Your task to perform on an android device: Clear all items from cart on walmart. Image 0: 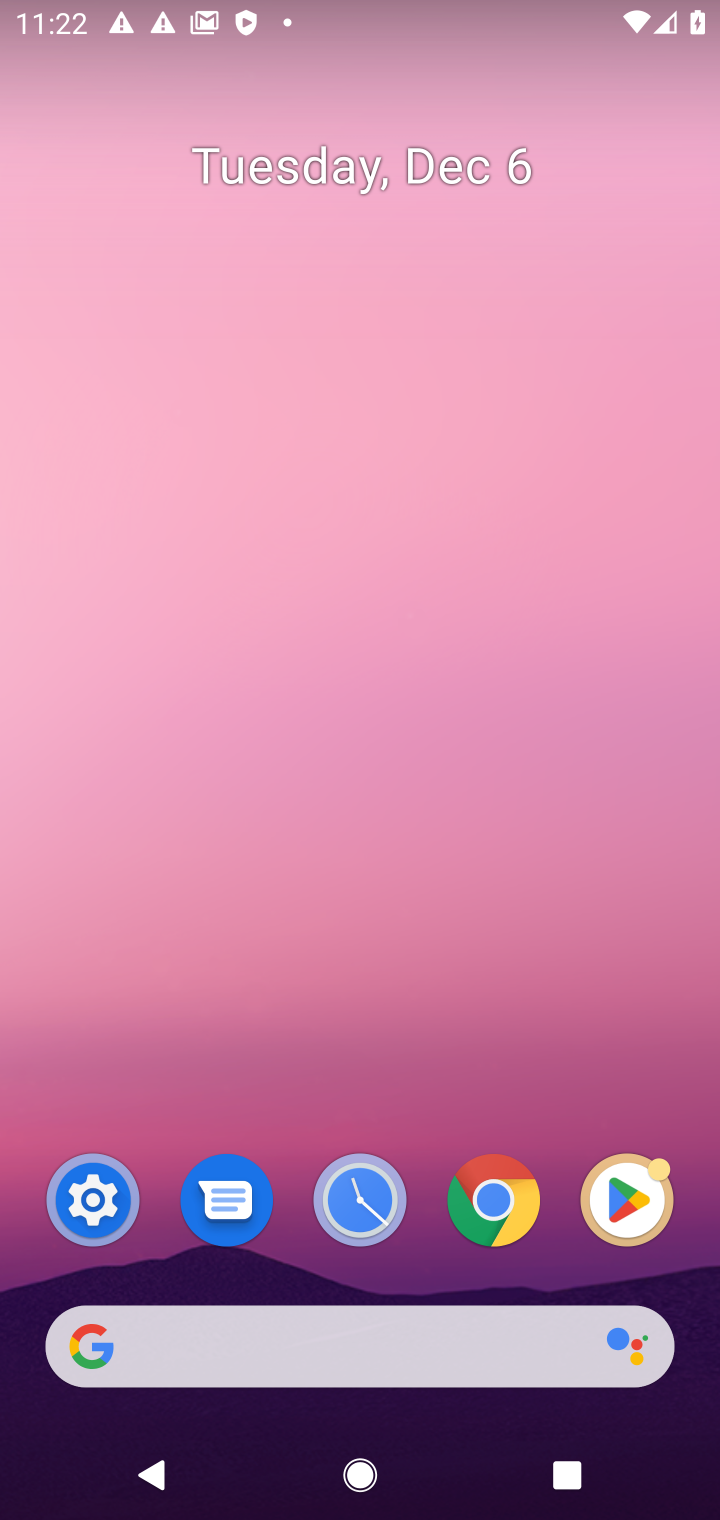
Step 0: click (390, 1387)
Your task to perform on an android device: Clear all items from cart on walmart. Image 1: 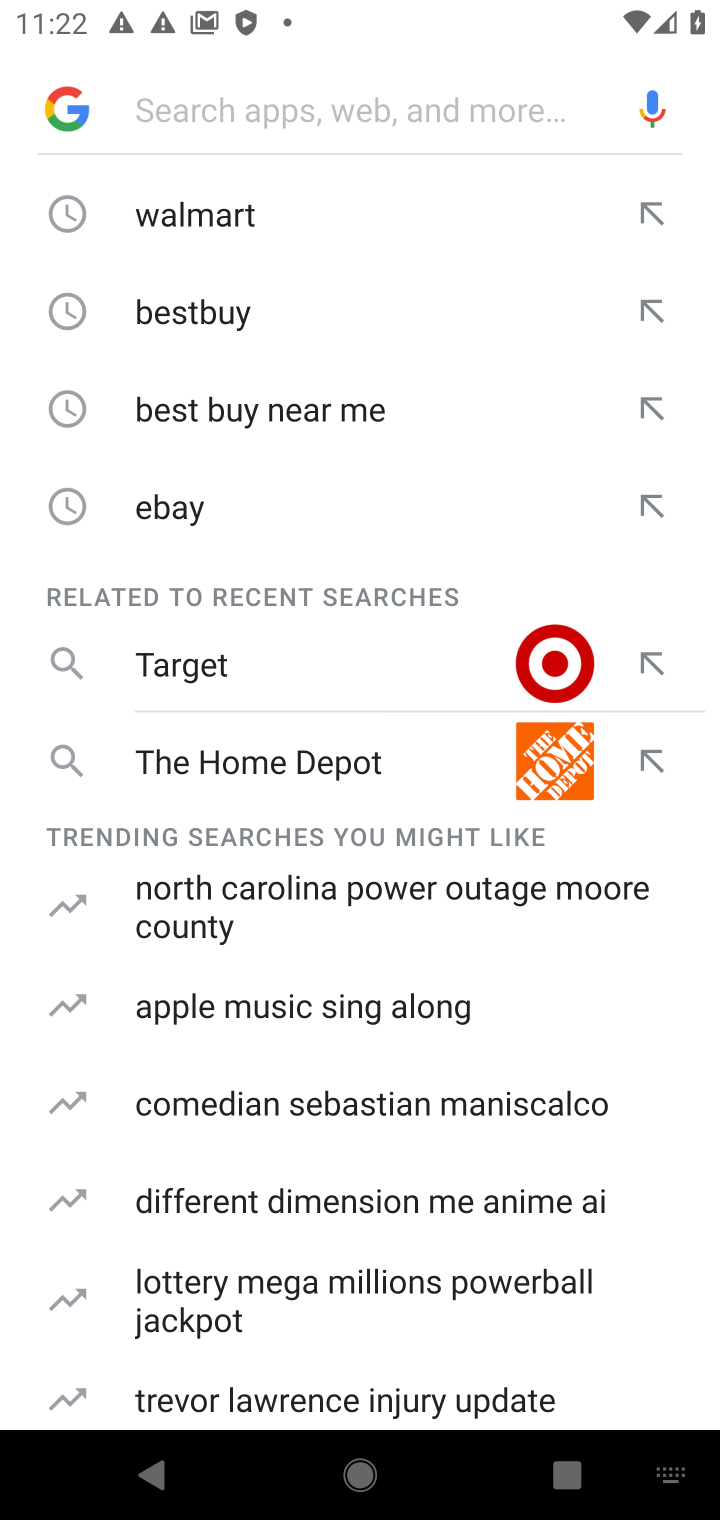
Step 1: type "walmart"
Your task to perform on an android device: Clear all items from cart on walmart. Image 2: 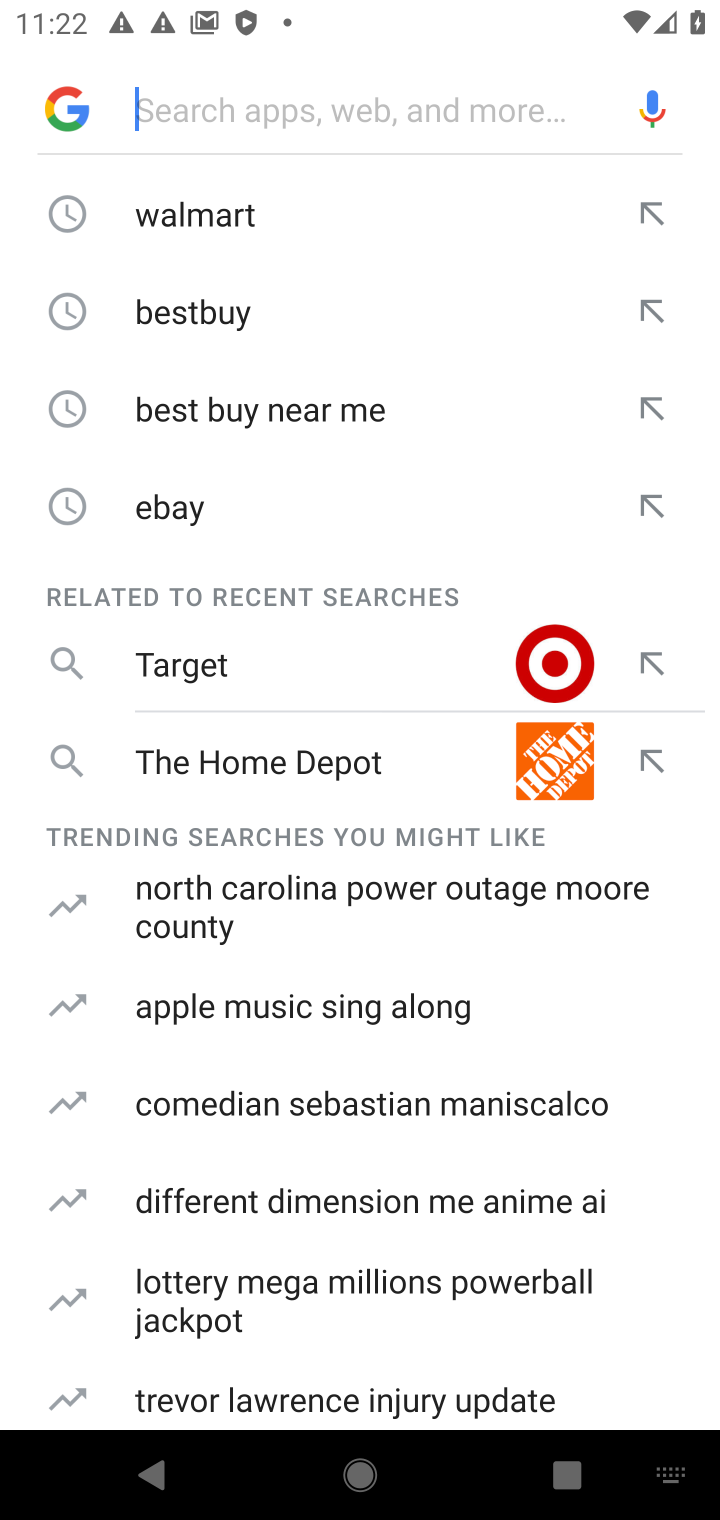
Step 2: click (406, 239)
Your task to perform on an android device: Clear all items from cart on walmart. Image 3: 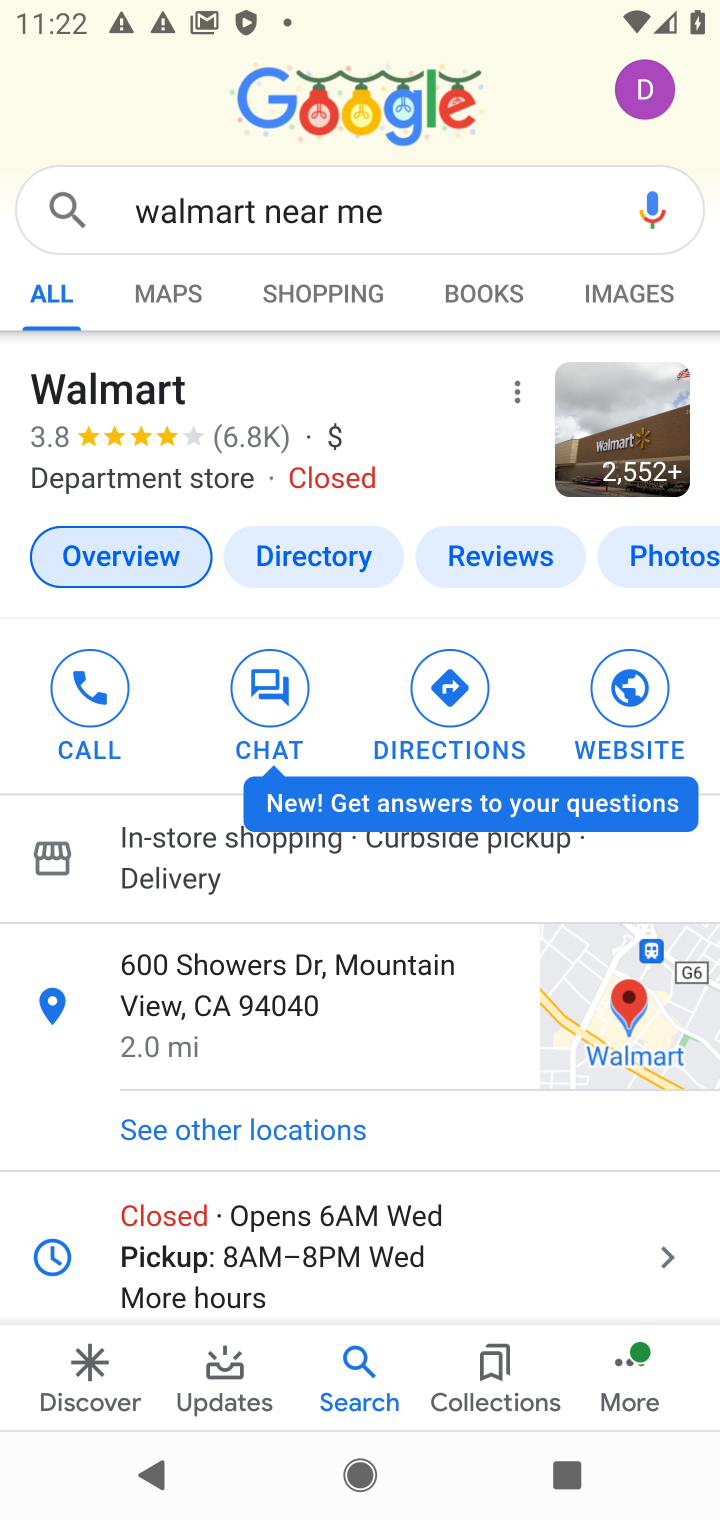
Step 3: click (618, 692)
Your task to perform on an android device: Clear all items from cart on walmart. Image 4: 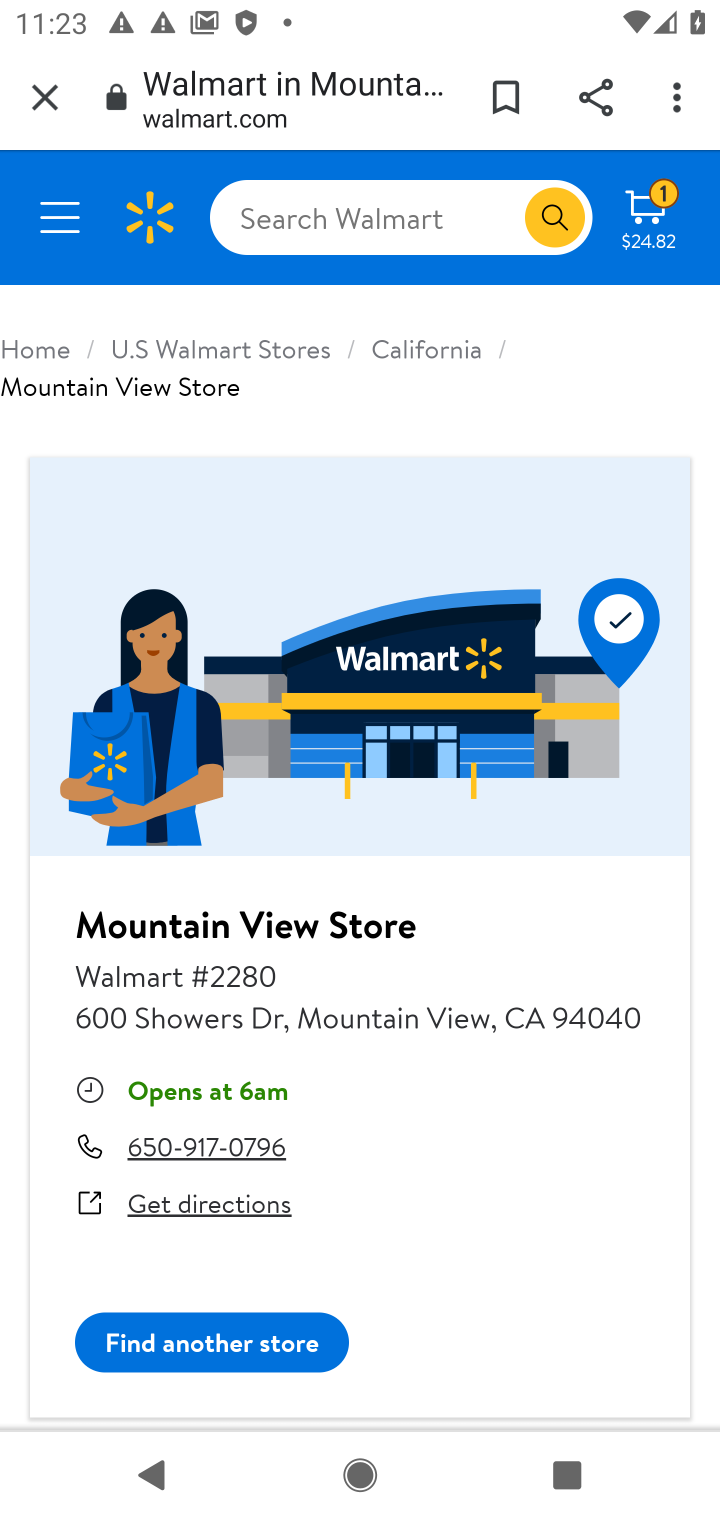
Step 4: click (382, 234)
Your task to perform on an android device: Clear all items from cart on walmart. Image 5: 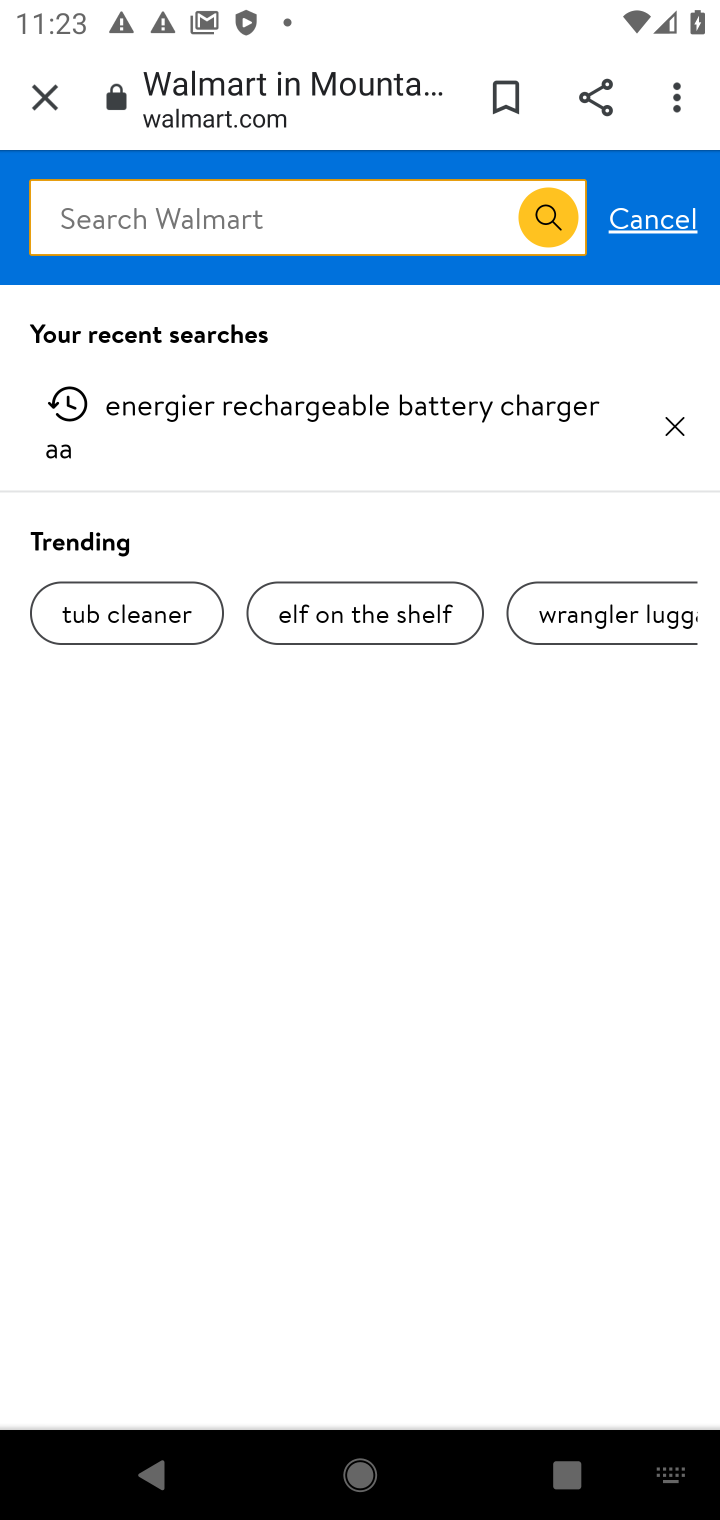
Step 5: click (657, 232)
Your task to perform on an android device: Clear all items from cart on walmart. Image 6: 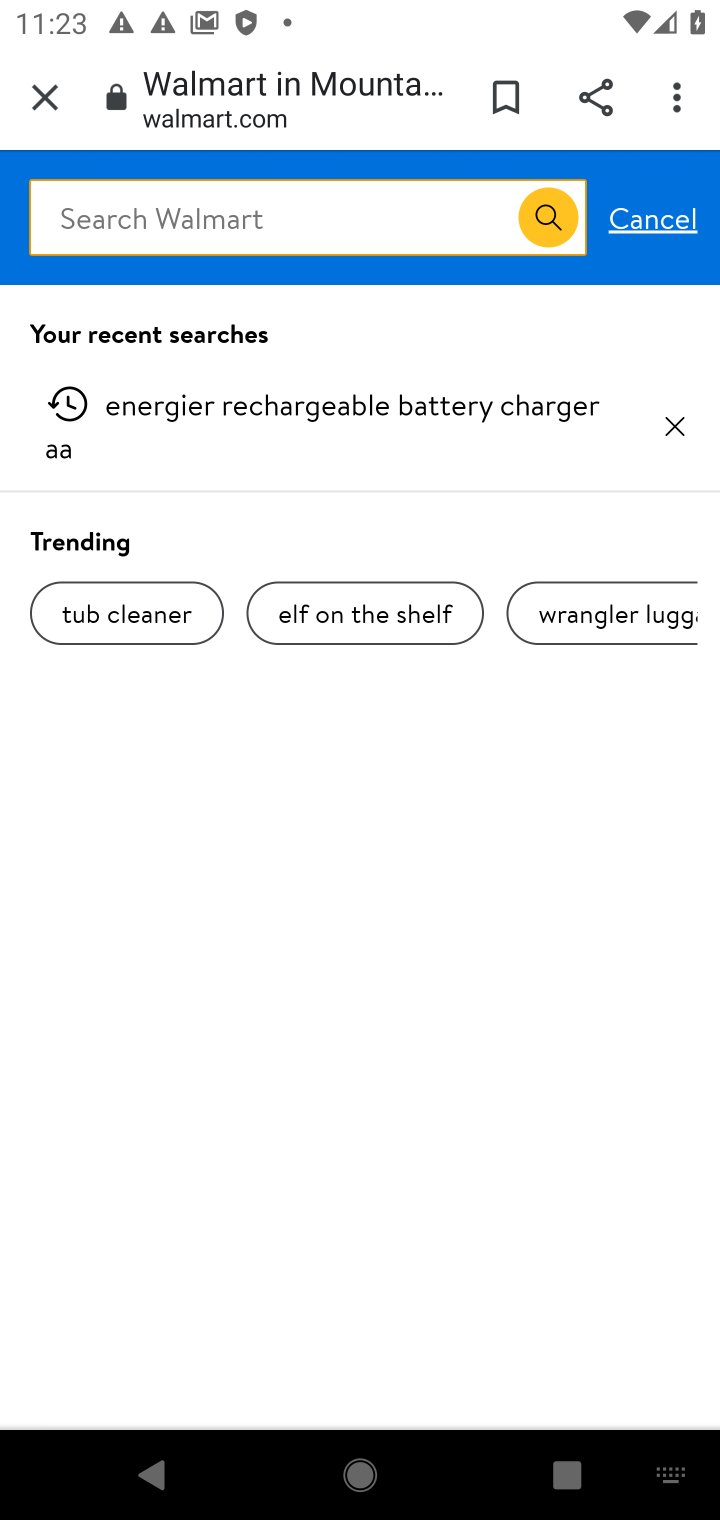
Step 6: click (657, 232)
Your task to perform on an android device: Clear all items from cart on walmart. Image 7: 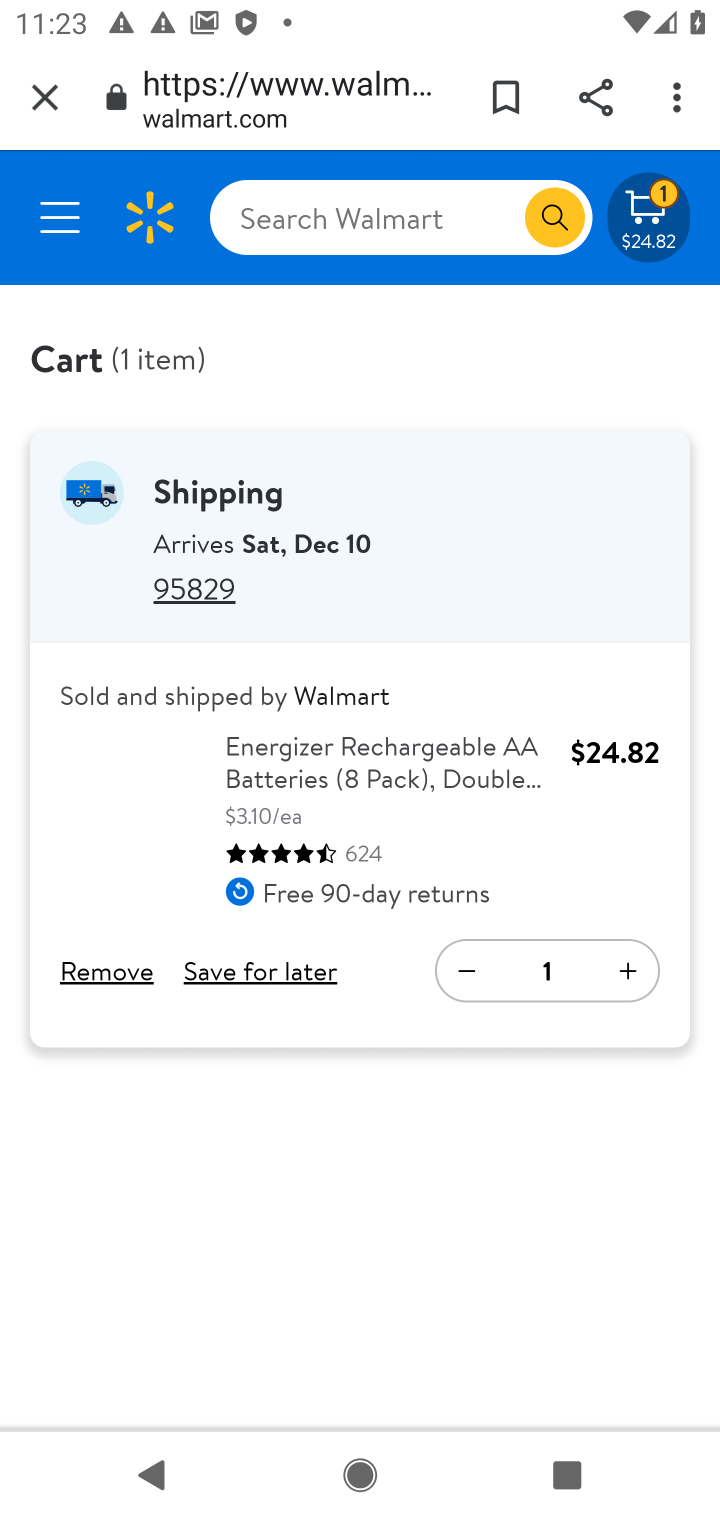
Step 7: click (657, 232)
Your task to perform on an android device: Clear all items from cart on walmart. Image 8: 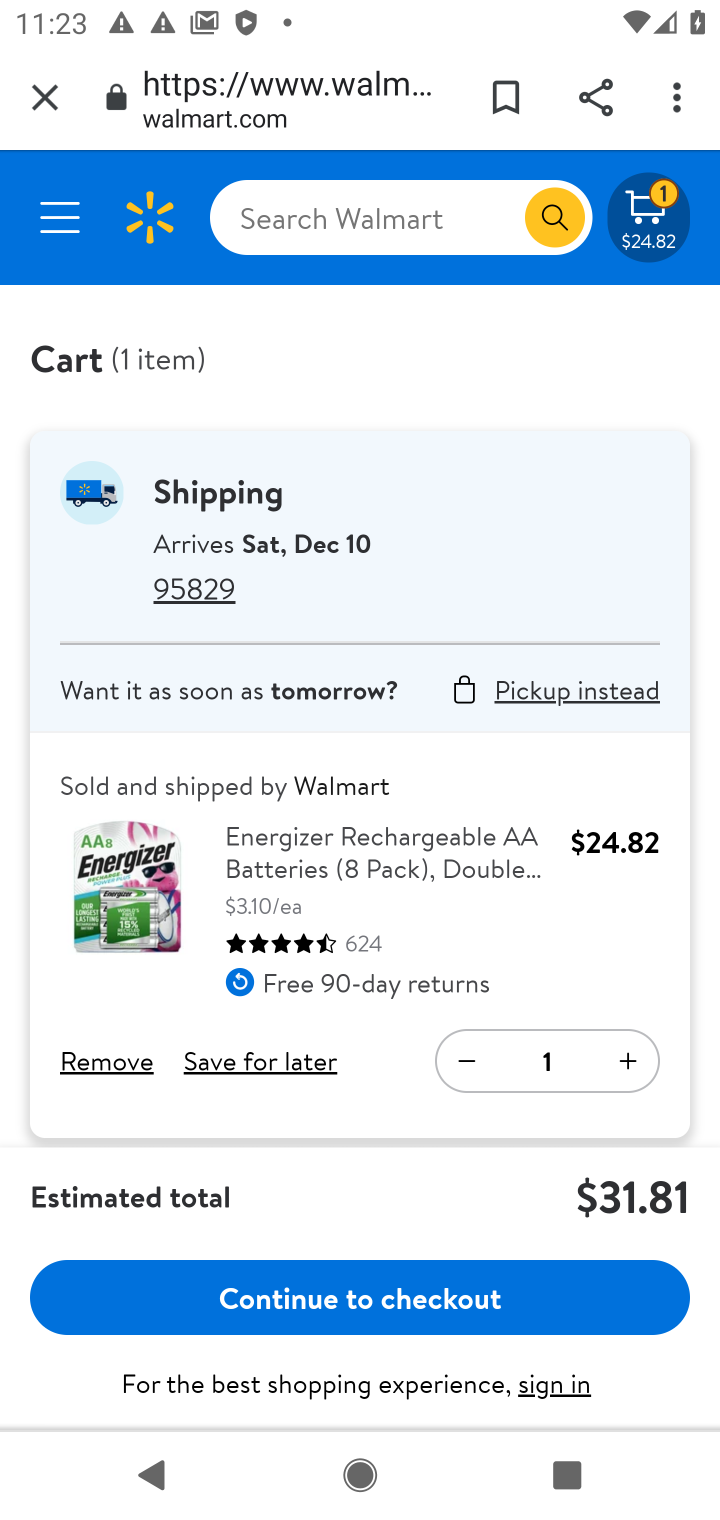
Step 8: click (113, 1061)
Your task to perform on an android device: Clear all items from cart on walmart. Image 9: 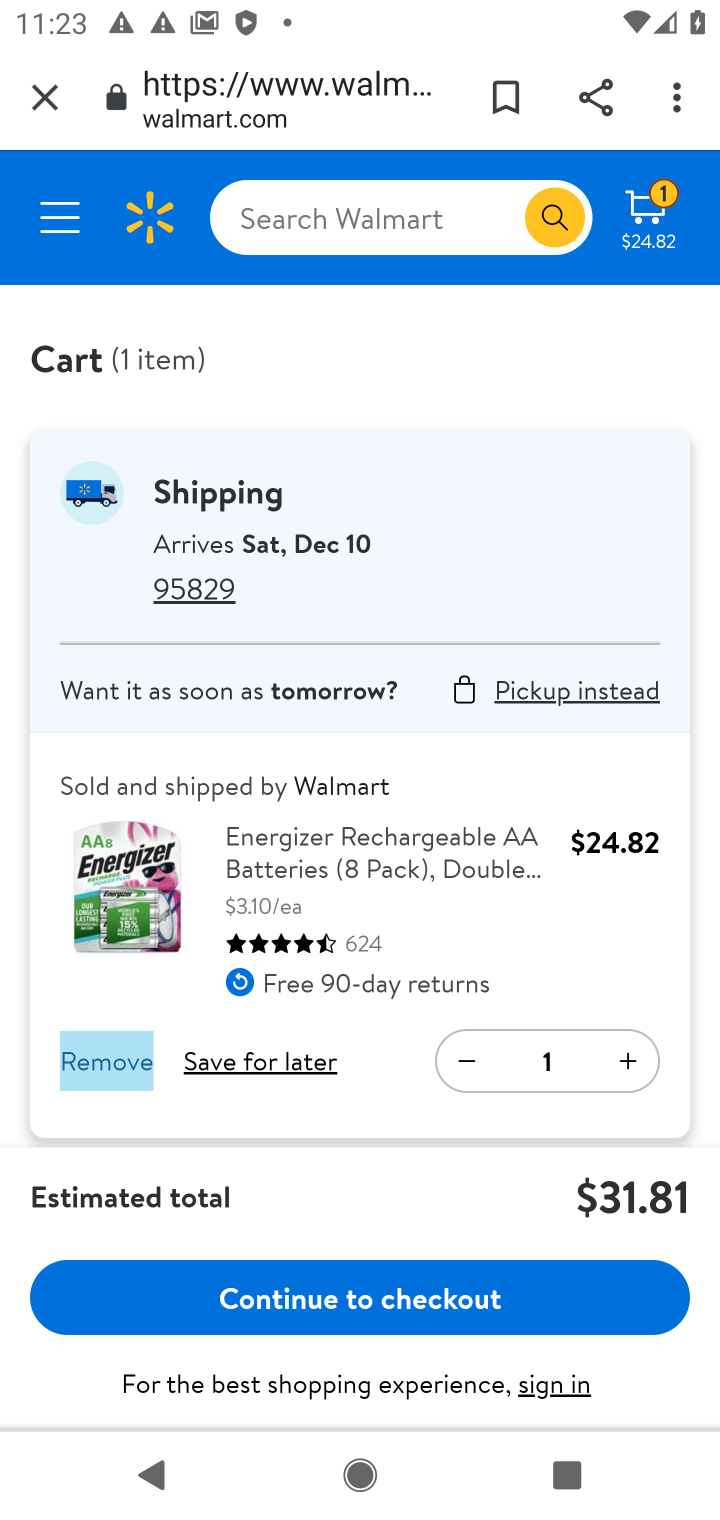
Step 9: task complete